Your task to perform on an android device: open app "Google Translate" (install if not already installed) Image 0: 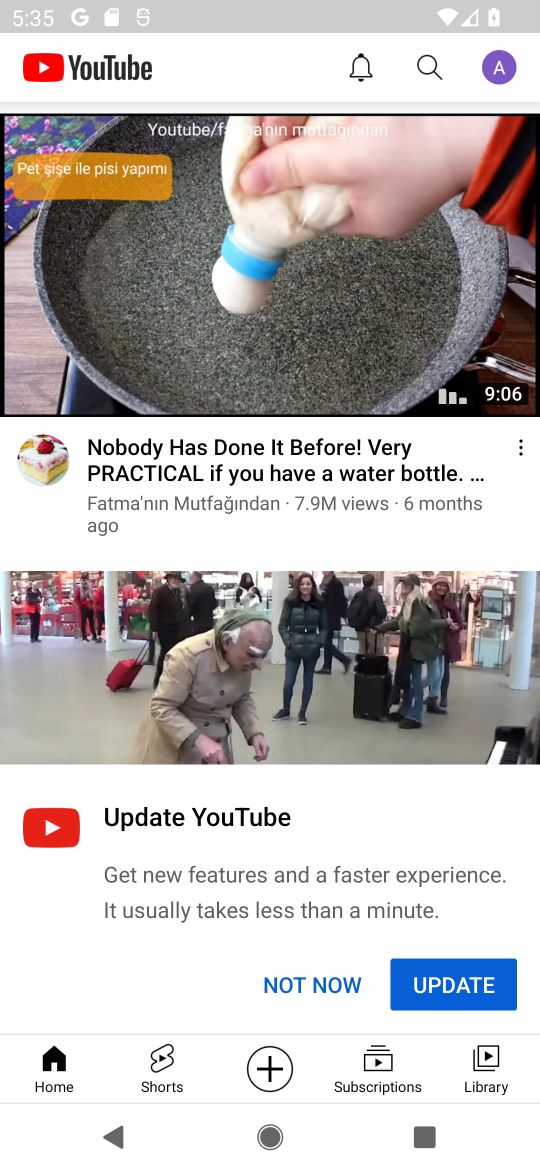
Step 0: press home button
Your task to perform on an android device: open app "Google Translate" (install if not already installed) Image 1: 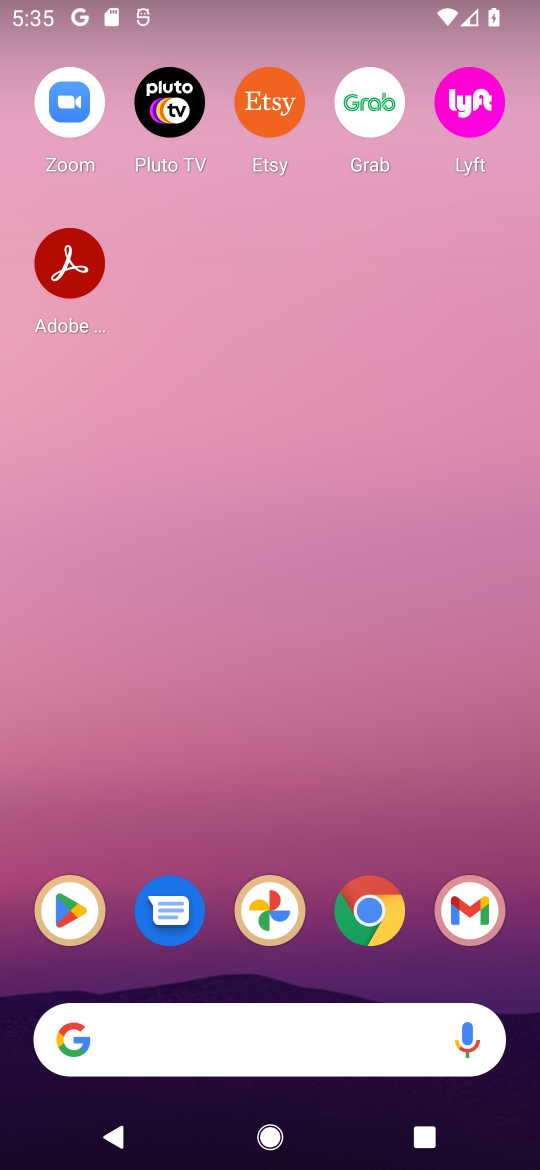
Step 1: click (66, 899)
Your task to perform on an android device: open app "Google Translate" (install if not already installed) Image 2: 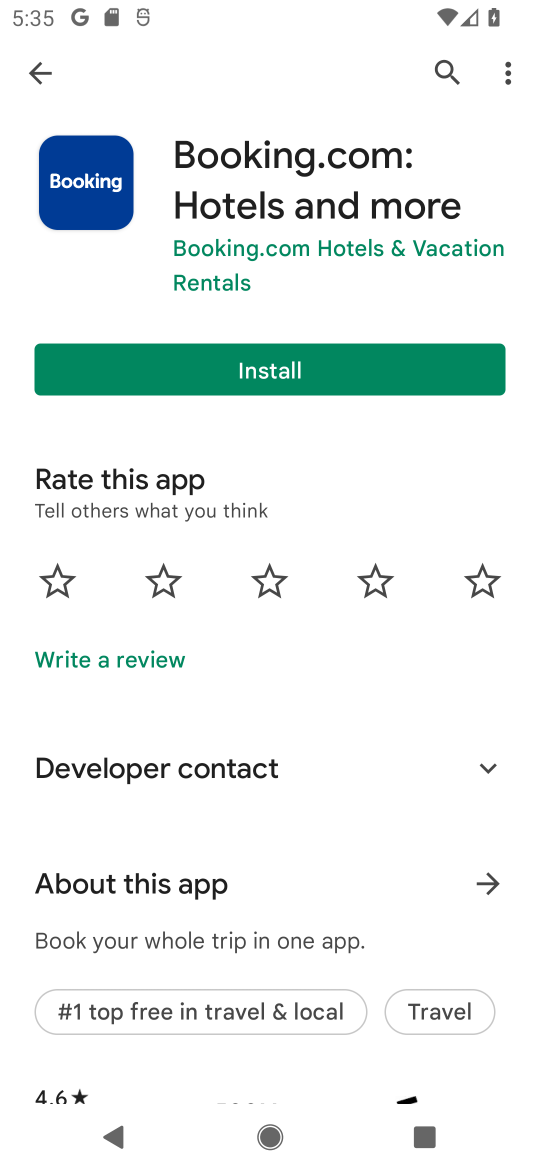
Step 2: click (455, 73)
Your task to perform on an android device: open app "Google Translate" (install if not already installed) Image 3: 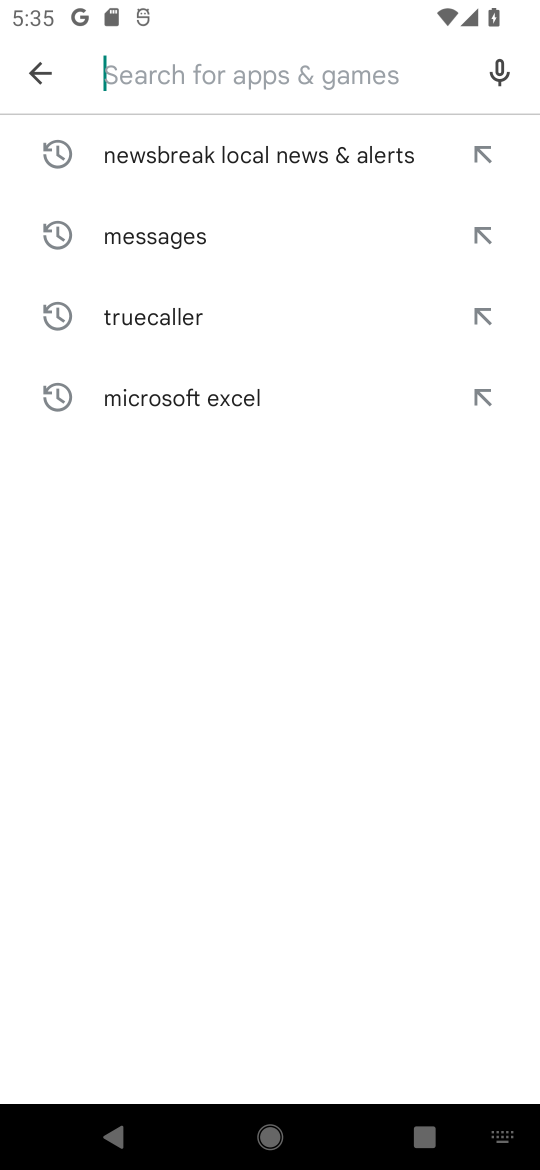
Step 3: type "google translate "
Your task to perform on an android device: open app "Google Translate" (install if not already installed) Image 4: 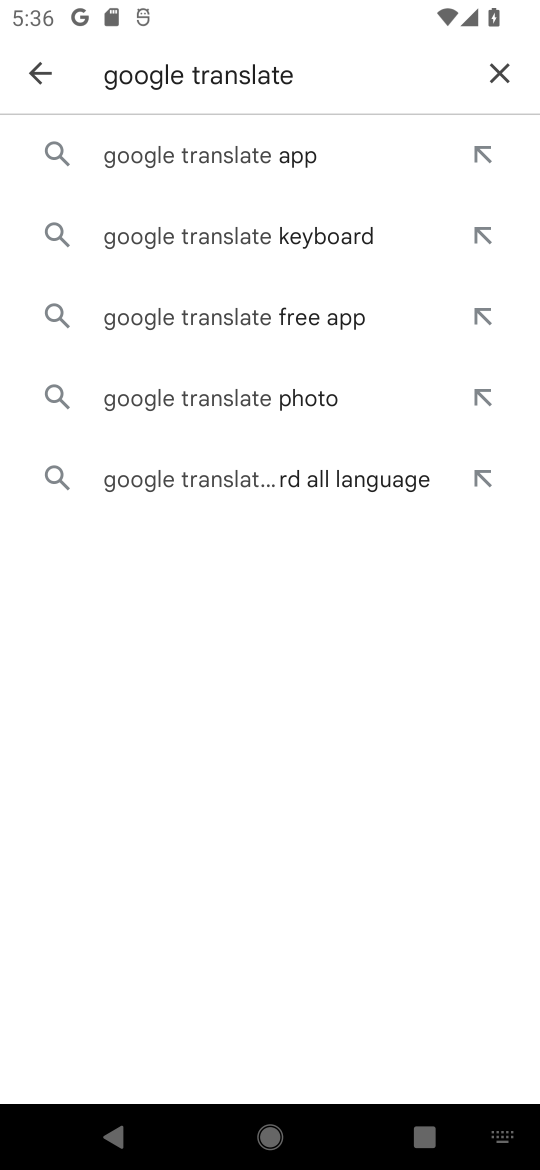
Step 4: click (308, 152)
Your task to perform on an android device: open app "Google Translate" (install if not already installed) Image 5: 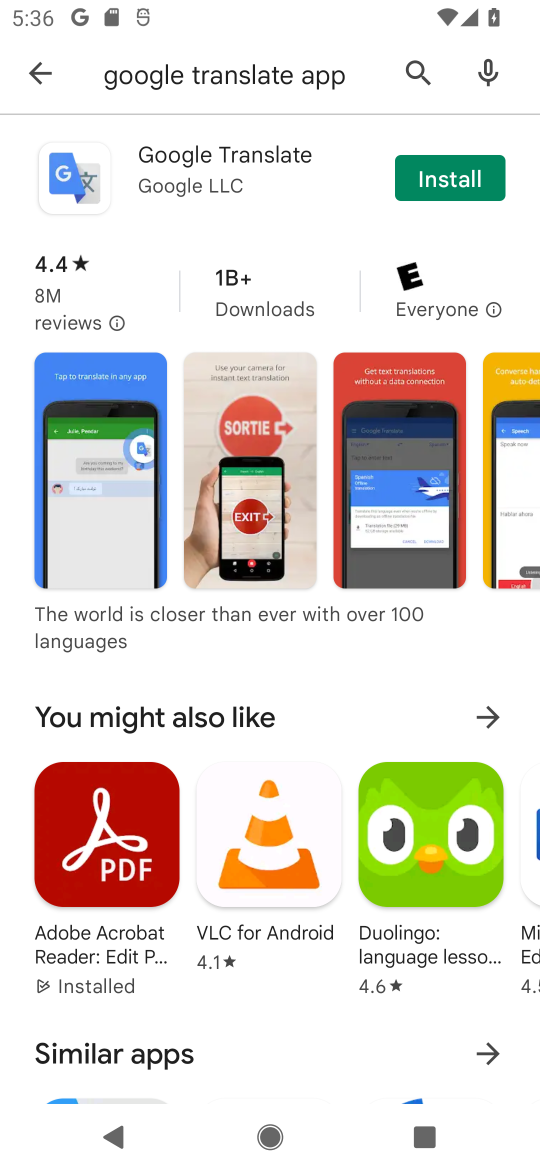
Step 5: click (232, 160)
Your task to perform on an android device: open app "Google Translate" (install if not already installed) Image 6: 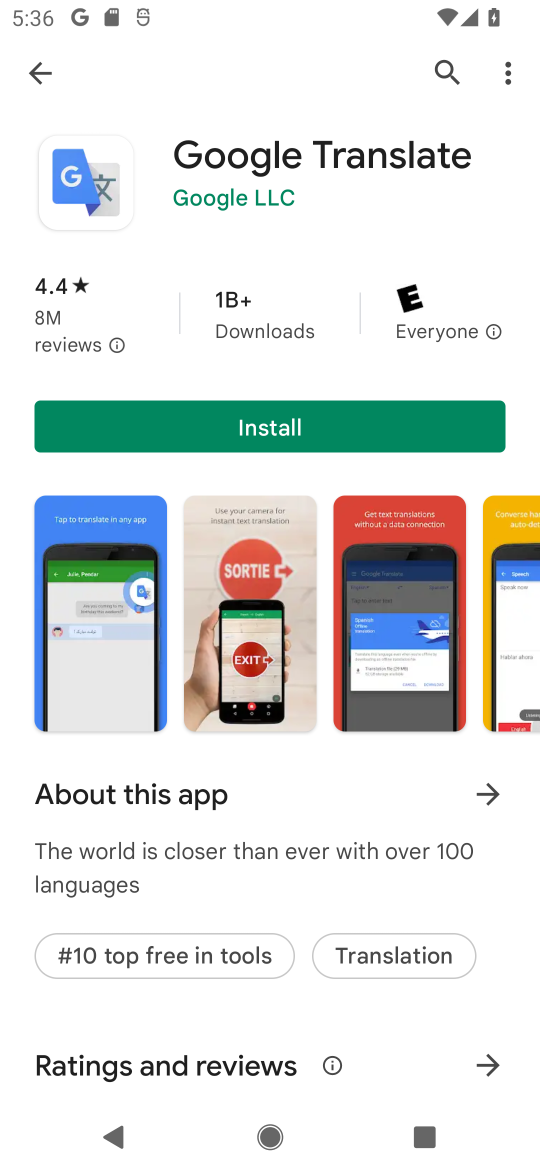
Step 6: click (258, 407)
Your task to perform on an android device: open app "Google Translate" (install if not already installed) Image 7: 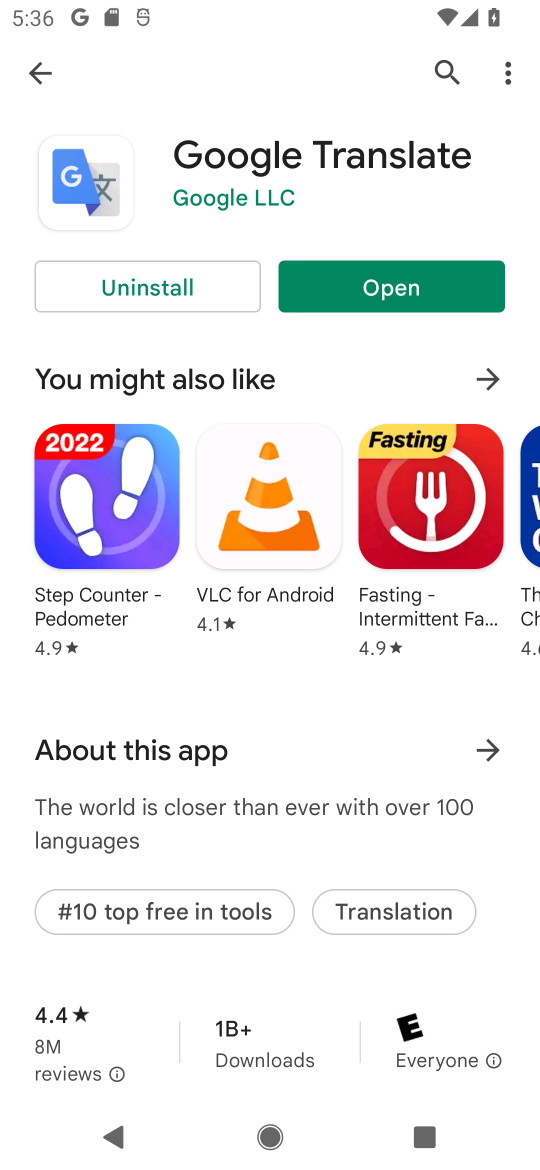
Step 7: click (398, 297)
Your task to perform on an android device: open app "Google Translate" (install if not already installed) Image 8: 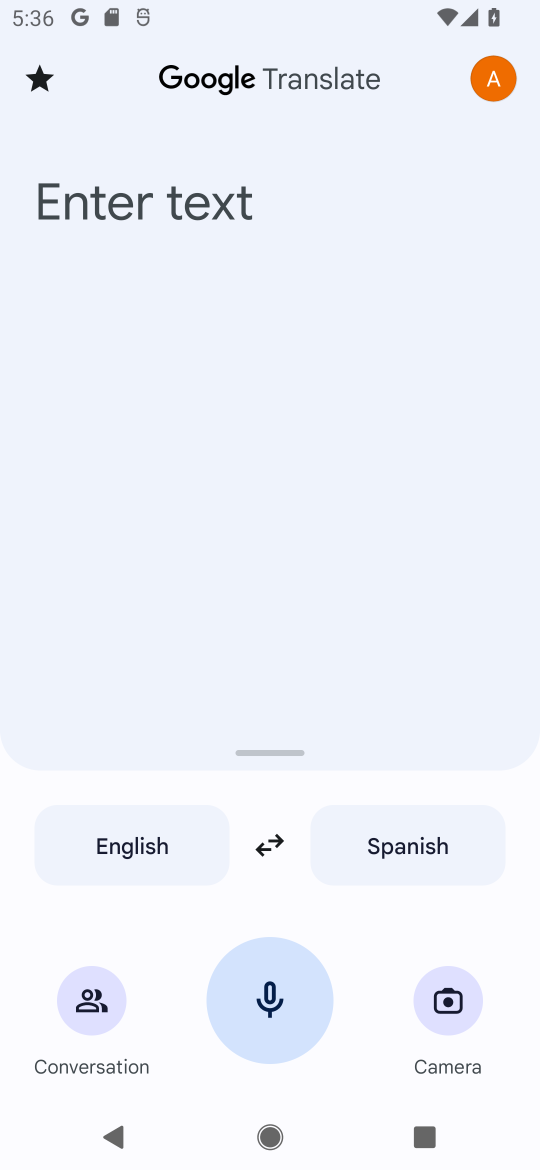
Step 8: task complete